Your task to perform on an android device: Open my contact list Image 0: 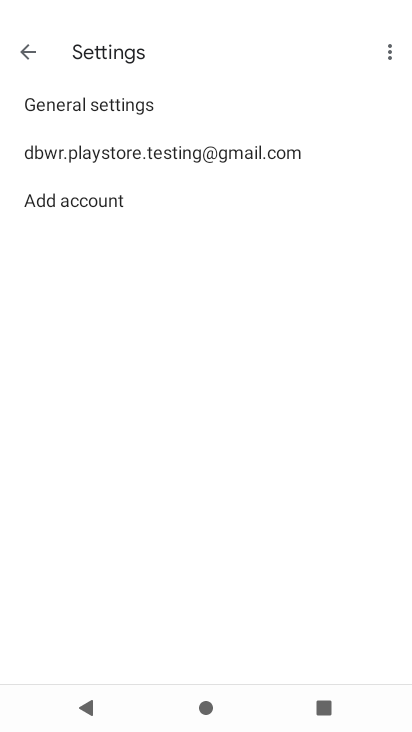
Step 0: press home button
Your task to perform on an android device: Open my contact list Image 1: 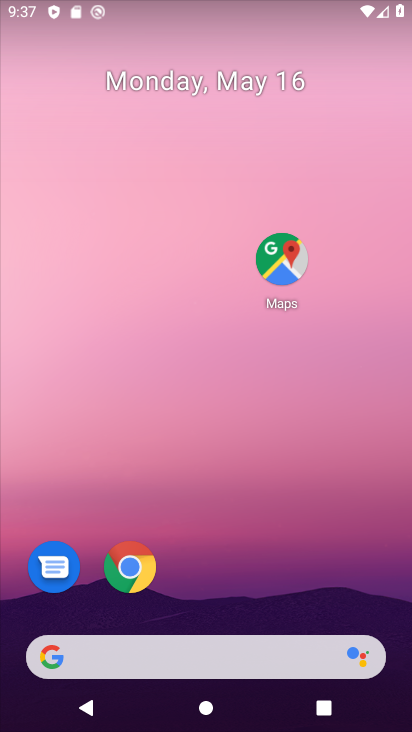
Step 1: drag from (242, 554) to (226, 17)
Your task to perform on an android device: Open my contact list Image 2: 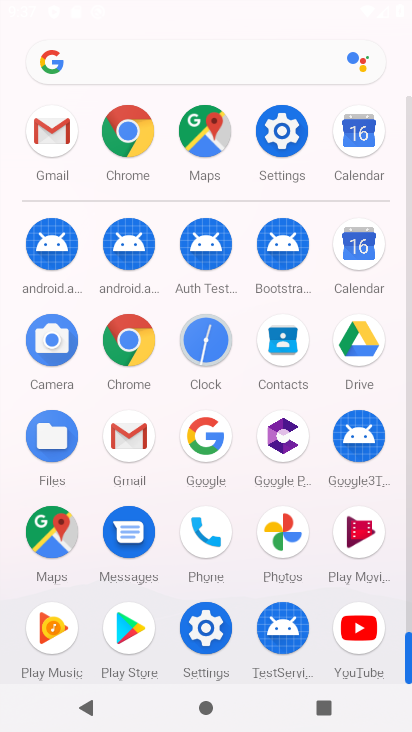
Step 2: click (284, 342)
Your task to perform on an android device: Open my contact list Image 3: 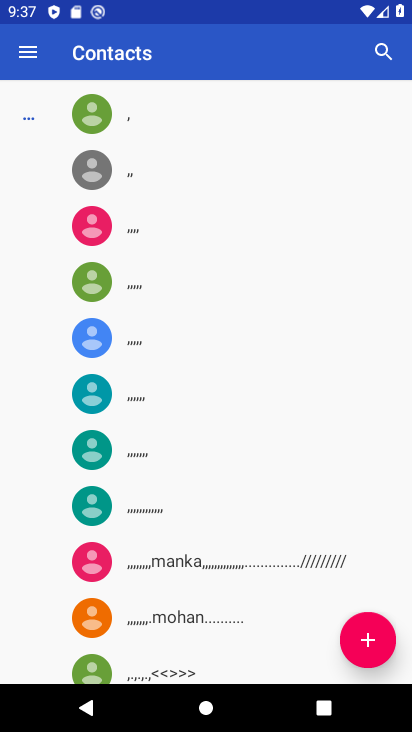
Step 3: task complete